Your task to perform on an android device: Go to Amazon Image 0: 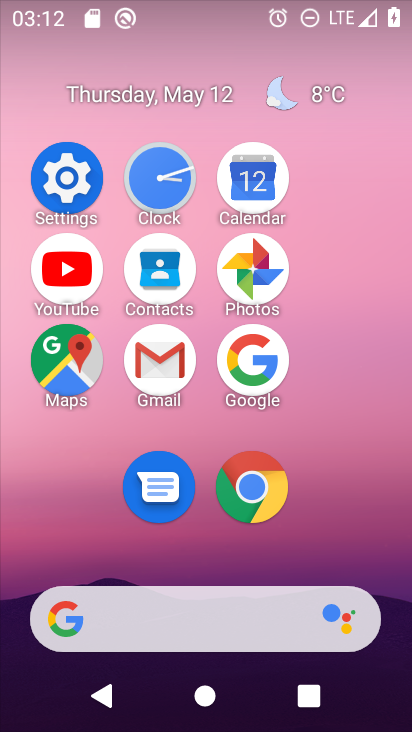
Step 0: click (269, 478)
Your task to perform on an android device: Go to Amazon Image 1: 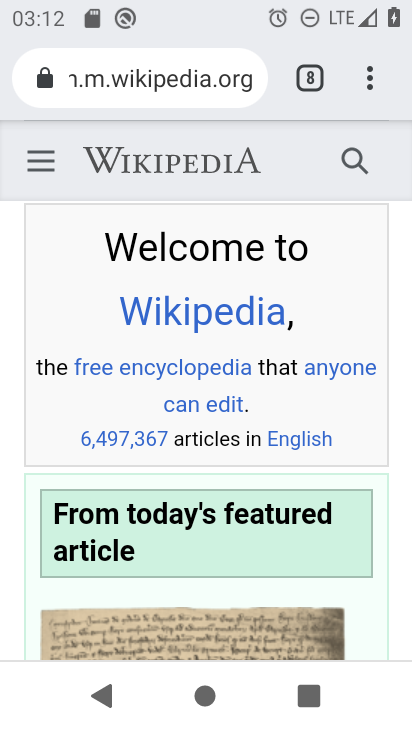
Step 1: click (319, 77)
Your task to perform on an android device: Go to Amazon Image 2: 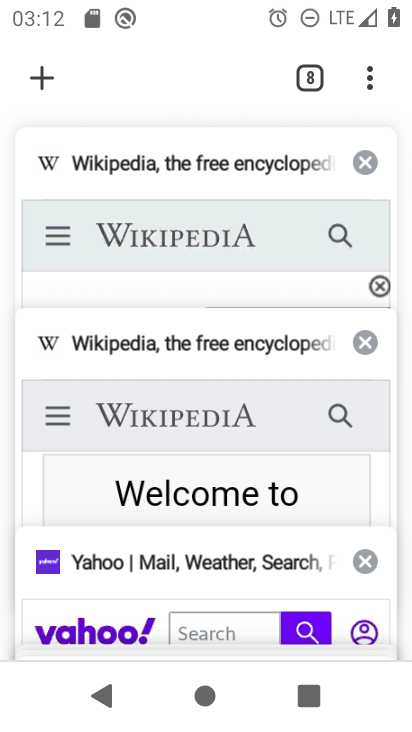
Step 2: drag from (160, 573) to (184, 187)
Your task to perform on an android device: Go to Amazon Image 3: 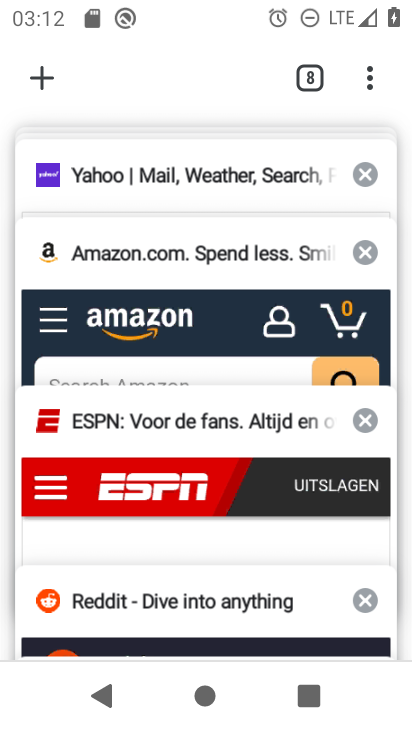
Step 3: click (145, 318)
Your task to perform on an android device: Go to Amazon Image 4: 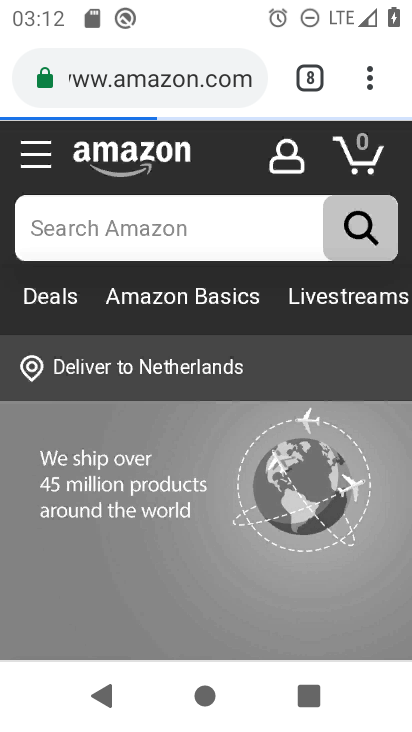
Step 4: task complete